Your task to perform on an android device: Search for vegetarian restaurants on Maps Image 0: 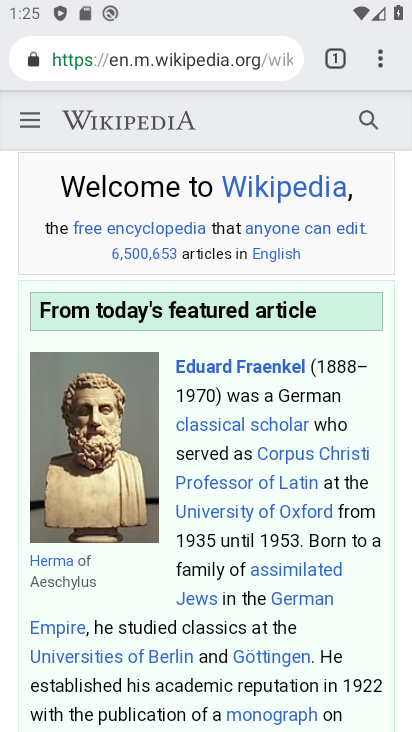
Step 0: press home button
Your task to perform on an android device: Search for vegetarian restaurants on Maps Image 1: 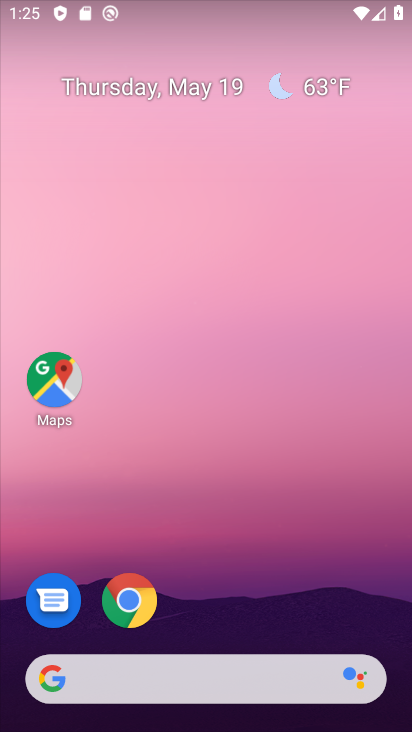
Step 1: click (76, 393)
Your task to perform on an android device: Search for vegetarian restaurants on Maps Image 2: 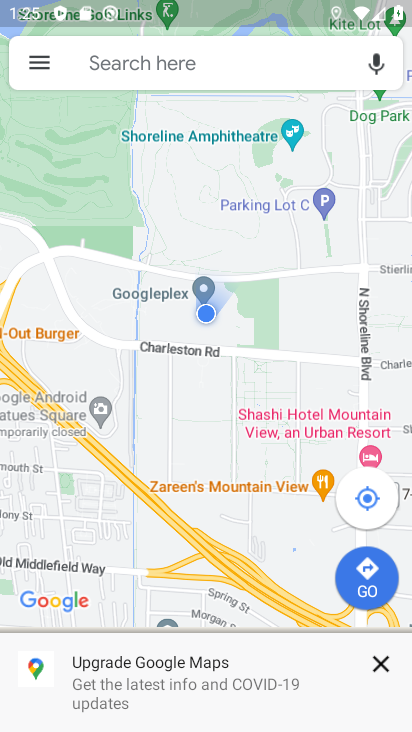
Step 2: click (179, 59)
Your task to perform on an android device: Search for vegetarian restaurants on Maps Image 3: 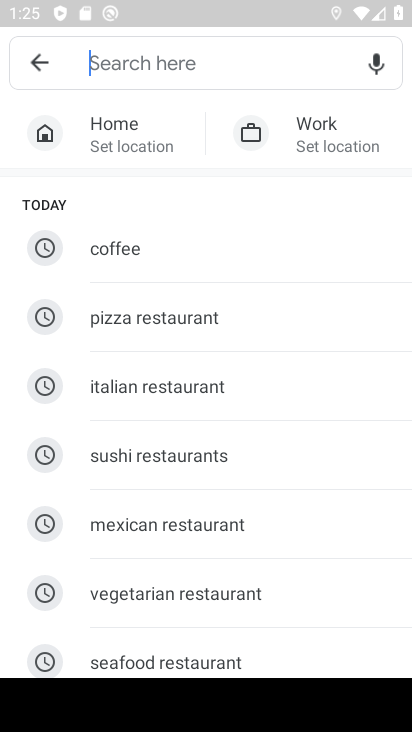
Step 3: click (175, 600)
Your task to perform on an android device: Search for vegetarian restaurants on Maps Image 4: 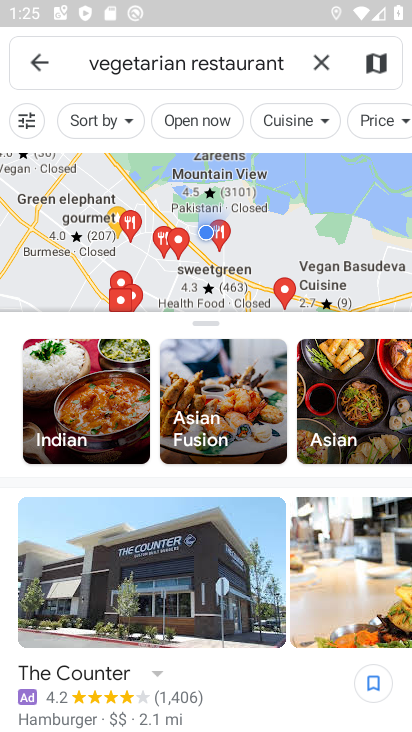
Step 4: task complete